Your task to perform on an android device: toggle notifications settings in the gmail app Image 0: 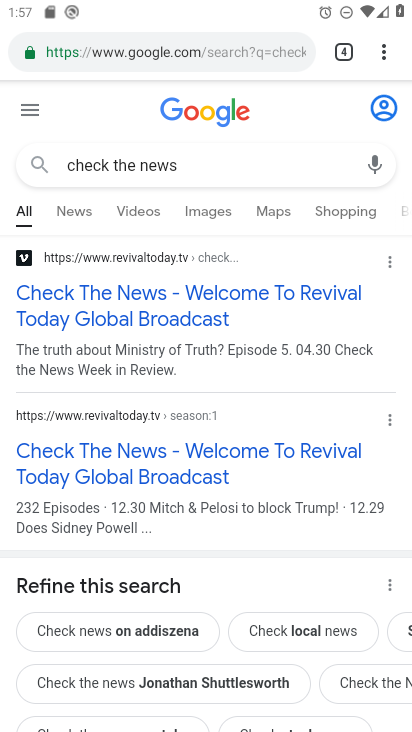
Step 0: press home button
Your task to perform on an android device: toggle notifications settings in the gmail app Image 1: 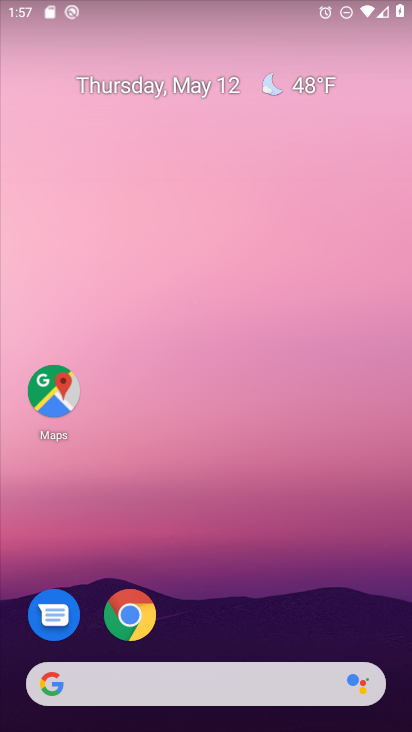
Step 1: drag from (320, 651) to (341, 2)
Your task to perform on an android device: toggle notifications settings in the gmail app Image 2: 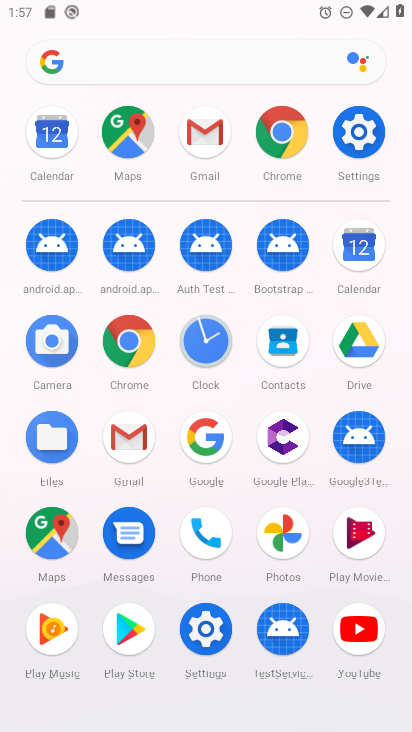
Step 2: click (141, 433)
Your task to perform on an android device: toggle notifications settings in the gmail app Image 3: 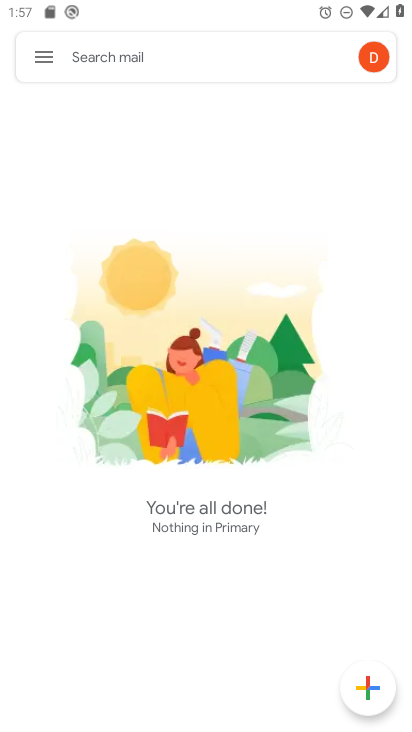
Step 3: click (44, 56)
Your task to perform on an android device: toggle notifications settings in the gmail app Image 4: 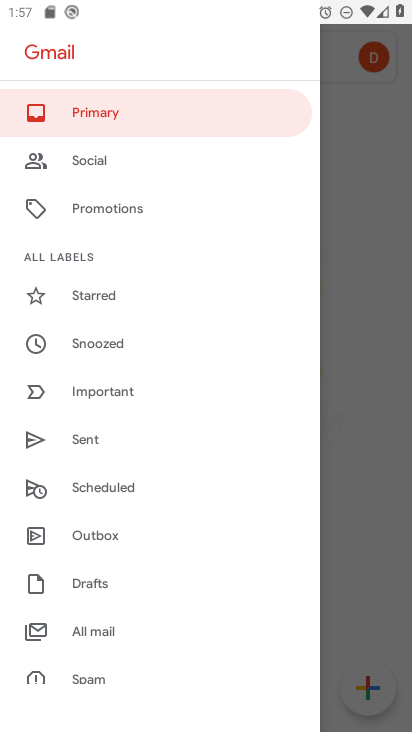
Step 4: drag from (157, 652) to (219, 42)
Your task to perform on an android device: toggle notifications settings in the gmail app Image 5: 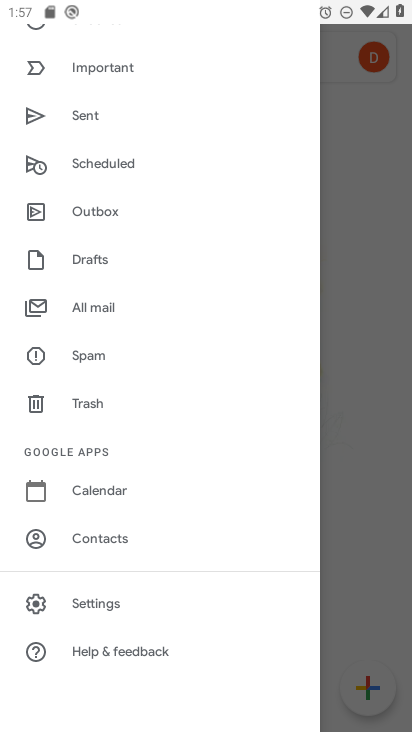
Step 5: click (123, 604)
Your task to perform on an android device: toggle notifications settings in the gmail app Image 6: 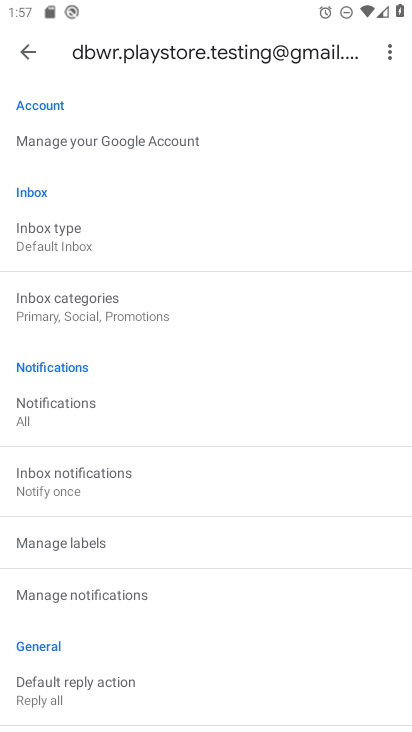
Step 6: click (127, 597)
Your task to perform on an android device: toggle notifications settings in the gmail app Image 7: 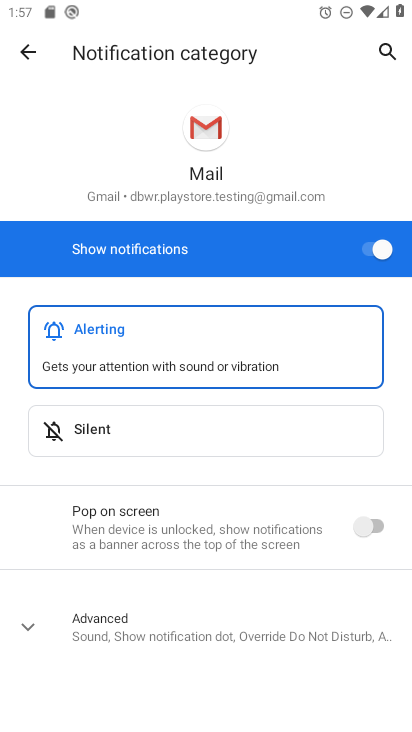
Step 7: click (374, 247)
Your task to perform on an android device: toggle notifications settings in the gmail app Image 8: 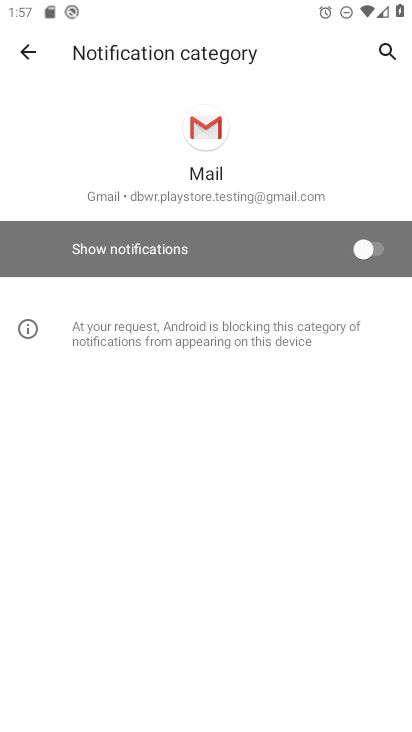
Step 8: task complete